Your task to perform on an android device: turn off javascript in the chrome app Image 0: 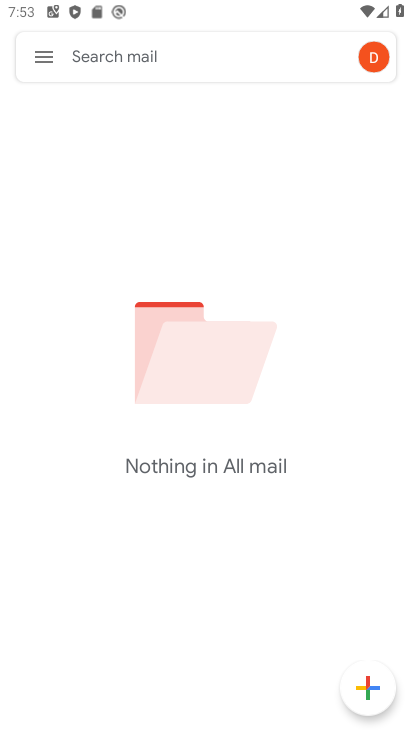
Step 0: press home button
Your task to perform on an android device: turn off javascript in the chrome app Image 1: 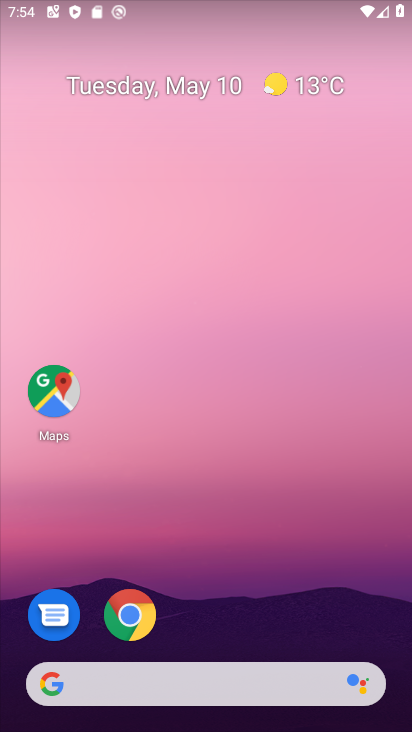
Step 1: click (132, 616)
Your task to perform on an android device: turn off javascript in the chrome app Image 2: 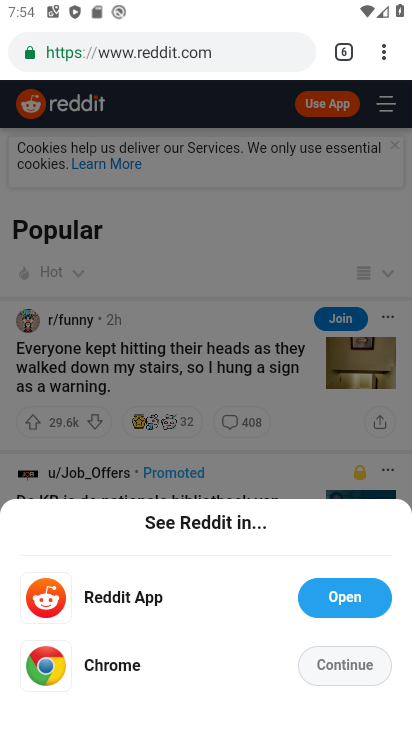
Step 2: click (325, 664)
Your task to perform on an android device: turn off javascript in the chrome app Image 3: 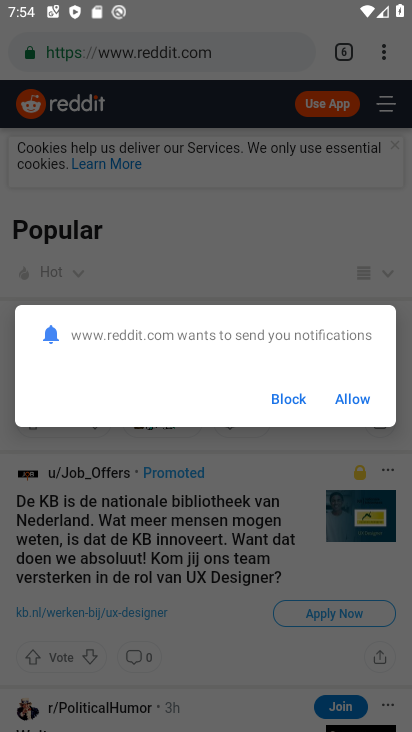
Step 3: click (342, 399)
Your task to perform on an android device: turn off javascript in the chrome app Image 4: 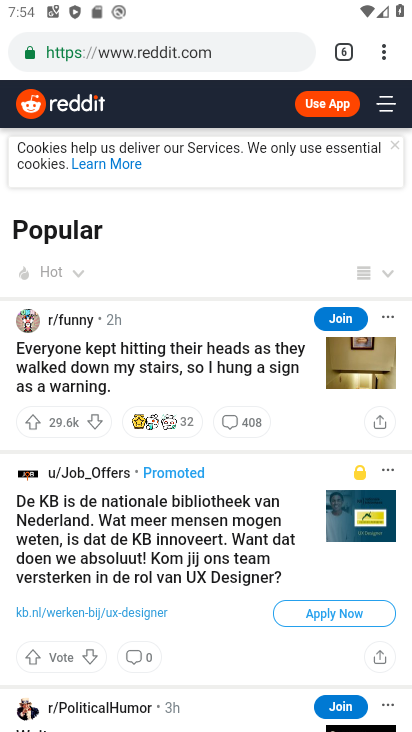
Step 4: click (382, 49)
Your task to perform on an android device: turn off javascript in the chrome app Image 5: 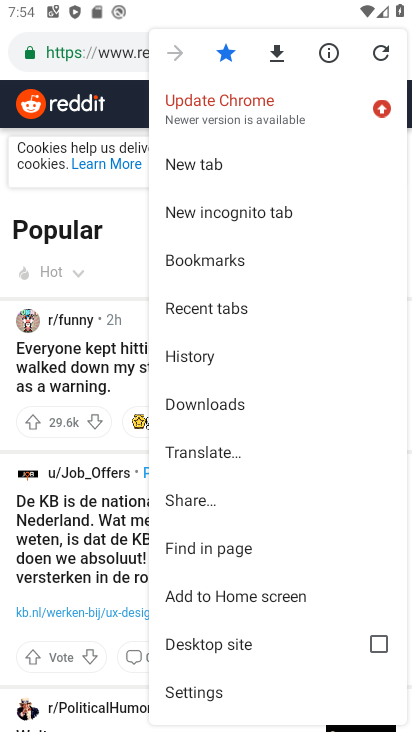
Step 5: click (199, 685)
Your task to perform on an android device: turn off javascript in the chrome app Image 6: 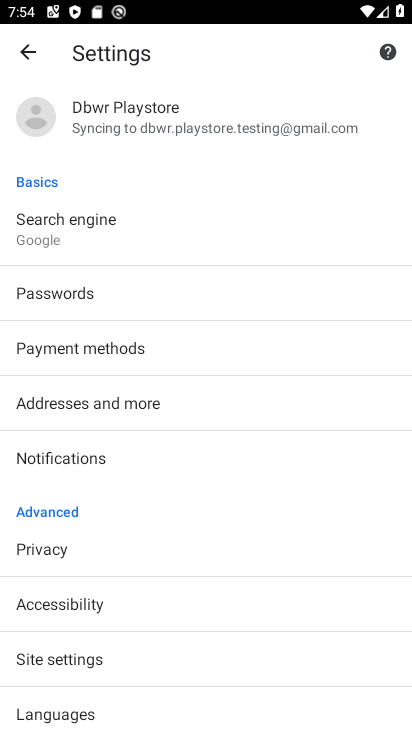
Step 6: click (61, 663)
Your task to perform on an android device: turn off javascript in the chrome app Image 7: 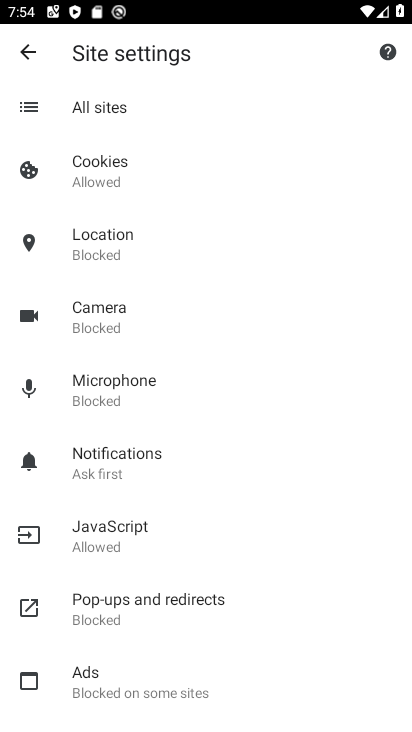
Step 7: click (122, 527)
Your task to perform on an android device: turn off javascript in the chrome app Image 8: 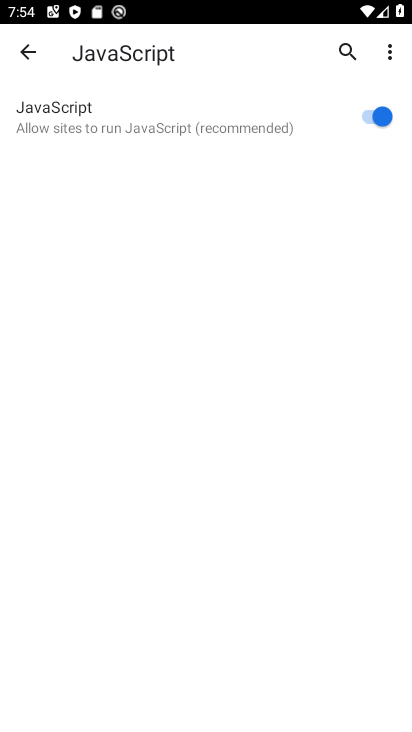
Step 8: click (380, 119)
Your task to perform on an android device: turn off javascript in the chrome app Image 9: 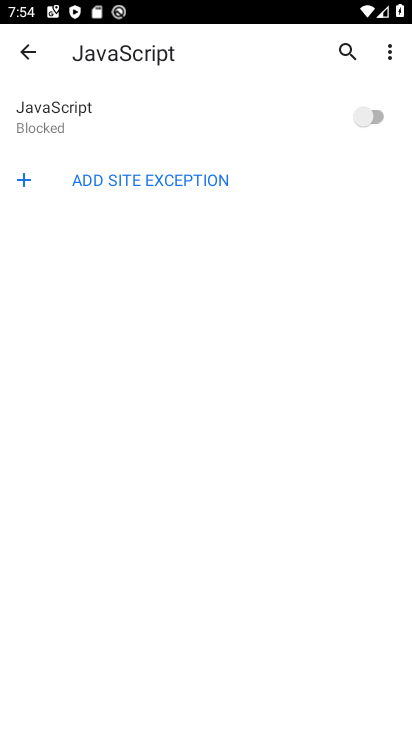
Step 9: task complete